Your task to perform on an android device: turn notification dots off Image 0: 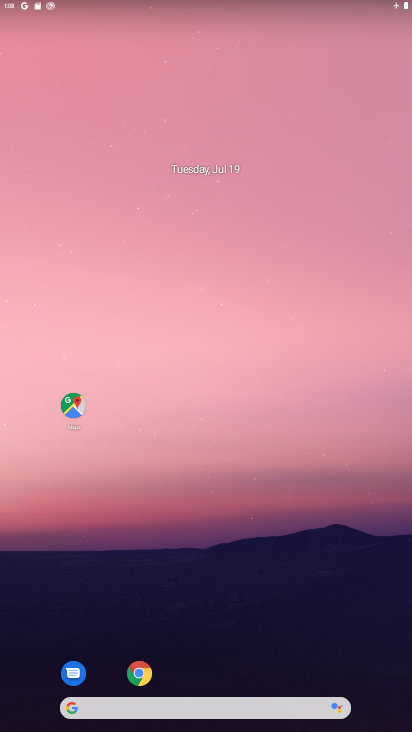
Step 0: drag from (139, 721) to (259, 37)
Your task to perform on an android device: turn notification dots off Image 1: 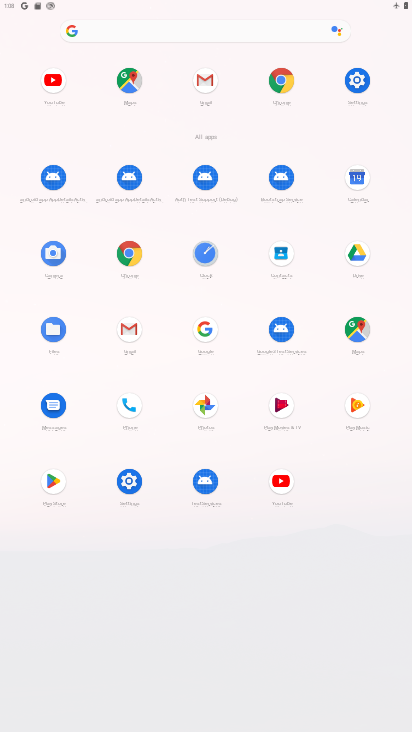
Step 1: click (356, 73)
Your task to perform on an android device: turn notification dots off Image 2: 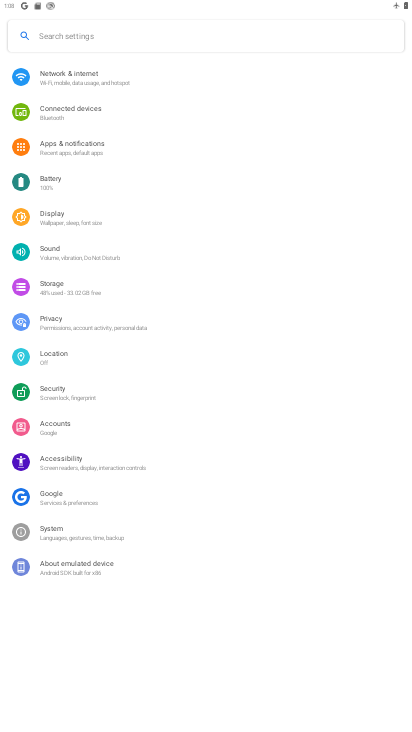
Step 2: click (72, 149)
Your task to perform on an android device: turn notification dots off Image 3: 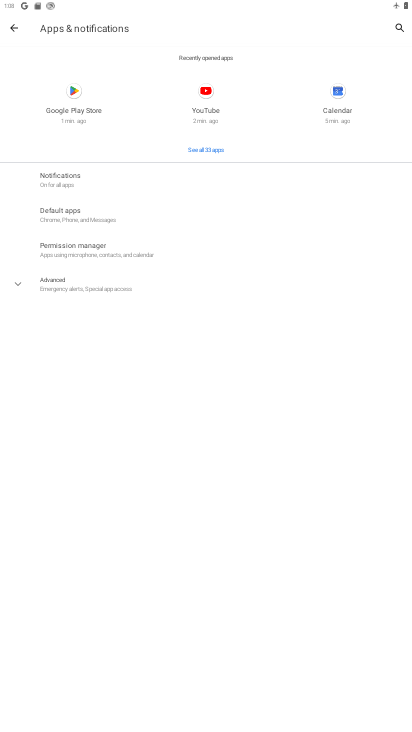
Step 3: click (92, 185)
Your task to perform on an android device: turn notification dots off Image 4: 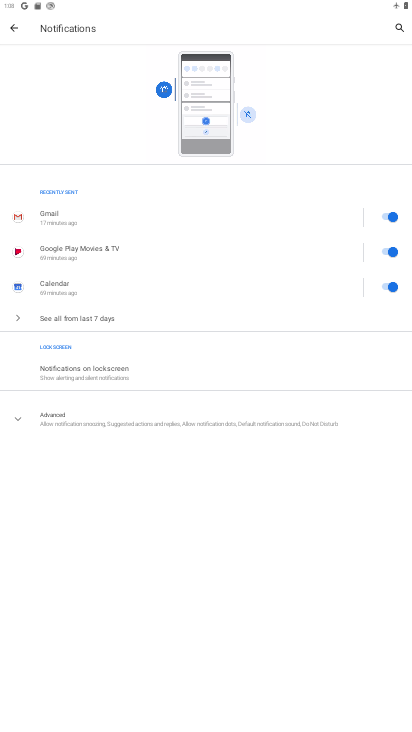
Step 4: click (130, 418)
Your task to perform on an android device: turn notification dots off Image 5: 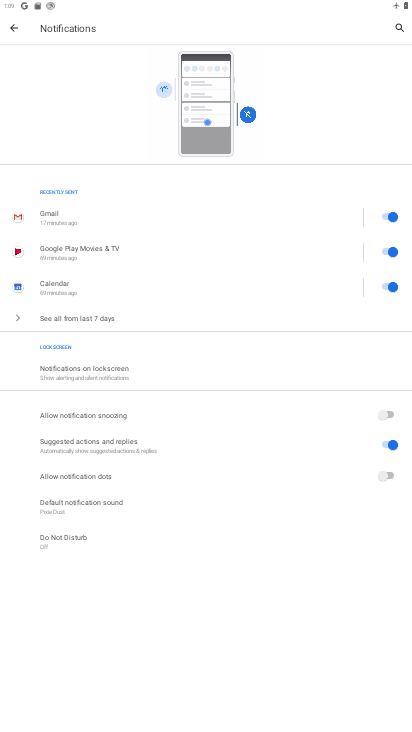
Step 5: task complete